Your task to perform on an android device: Search for seafood restaurants on Google Maps Image 0: 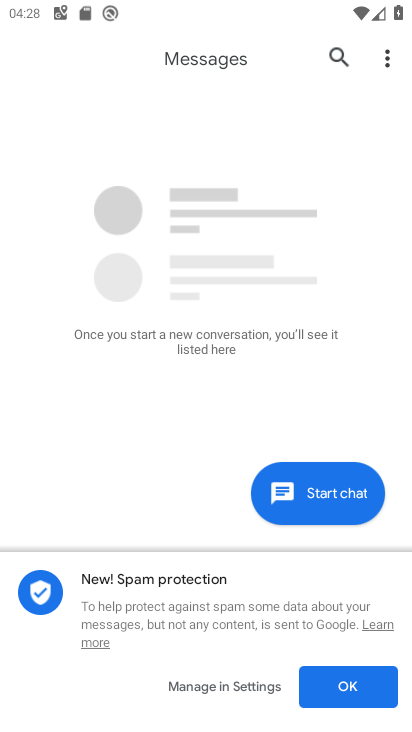
Step 0: press home button
Your task to perform on an android device: Search for seafood restaurants on Google Maps Image 1: 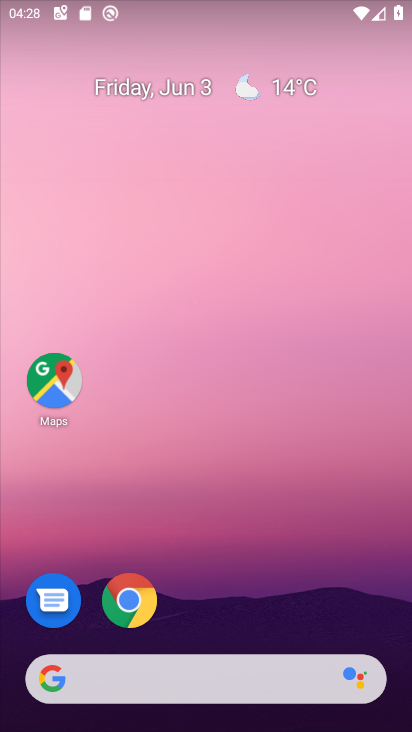
Step 1: click (50, 378)
Your task to perform on an android device: Search for seafood restaurants on Google Maps Image 2: 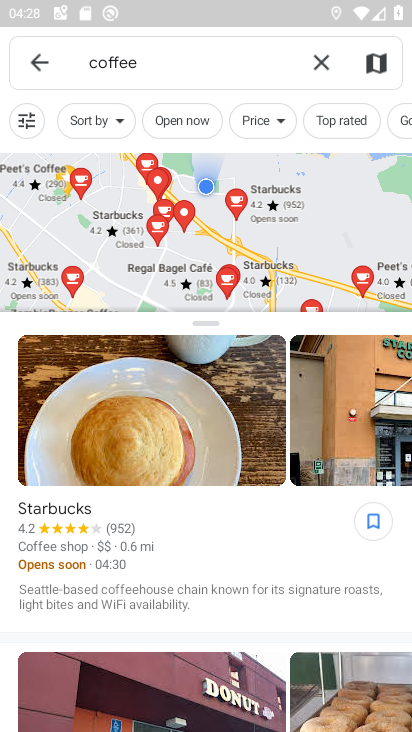
Step 2: click (182, 67)
Your task to perform on an android device: Search for seafood restaurants on Google Maps Image 3: 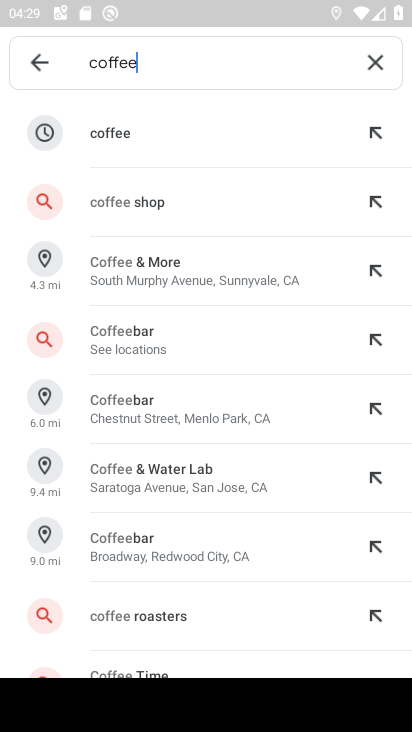
Step 3: click (379, 59)
Your task to perform on an android device: Search for seafood restaurants on Google Maps Image 4: 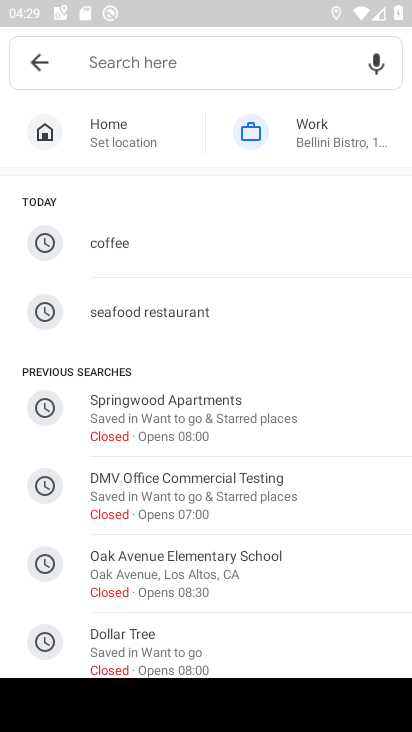
Step 4: type "seafood restaurants"
Your task to perform on an android device: Search for seafood restaurants on Google Maps Image 5: 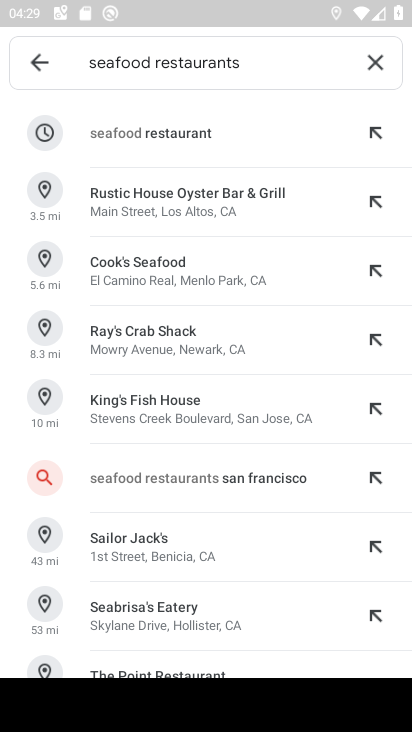
Step 5: press enter
Your task to perform on an android device: Search for seafood restaurants on Google Maps Image 6: 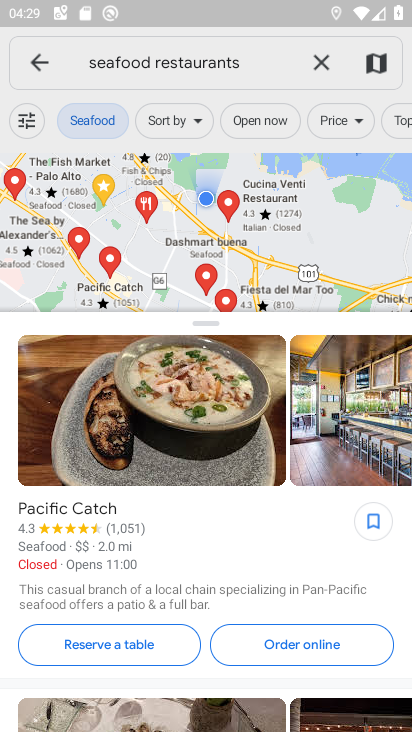
Step 6: task complete